Your task to perform on an android device: turn off javascript in the chrome app Image 0: 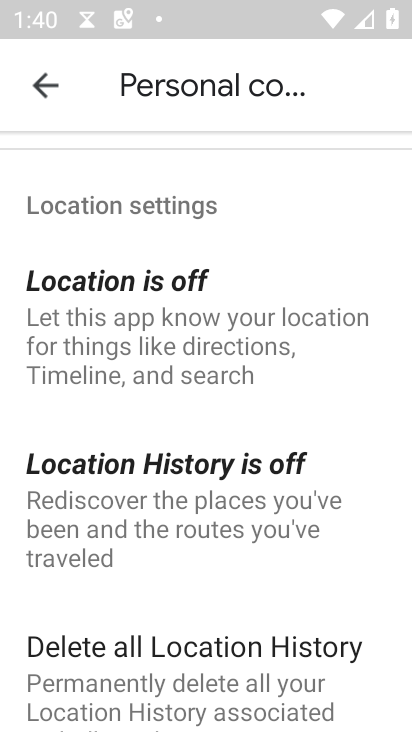
Step 0: task complete